Your task to perform on an android device: add a contact Image 0: 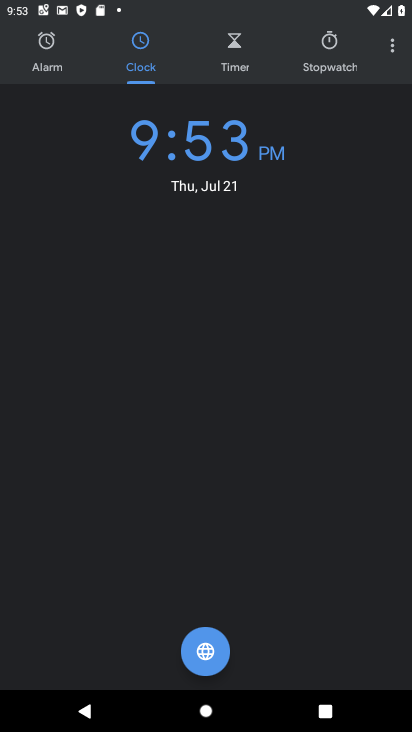
Step 0: press back button
Your task to perform on an android device: add a contact Image 1: 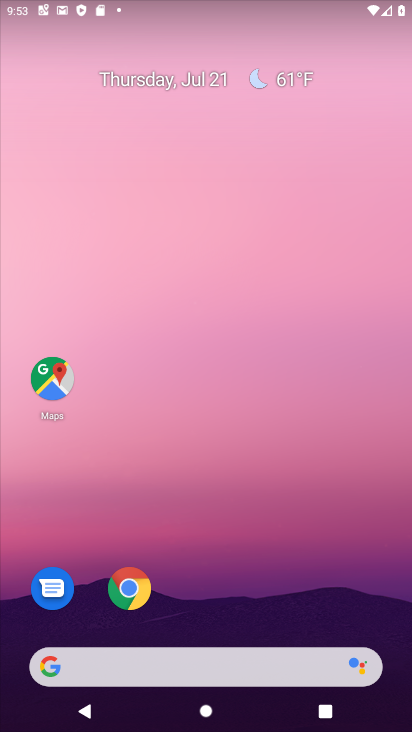
Step 1: drag from (236, 572) to (323, 5)
Your task to perform on an android device: add a contact Image 2: 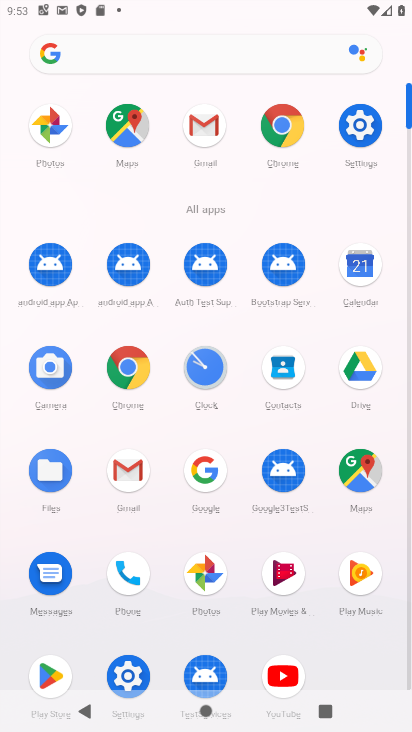
Step 2: click (288, 371)
Your task to perform on an android device: add a contact Image 3: 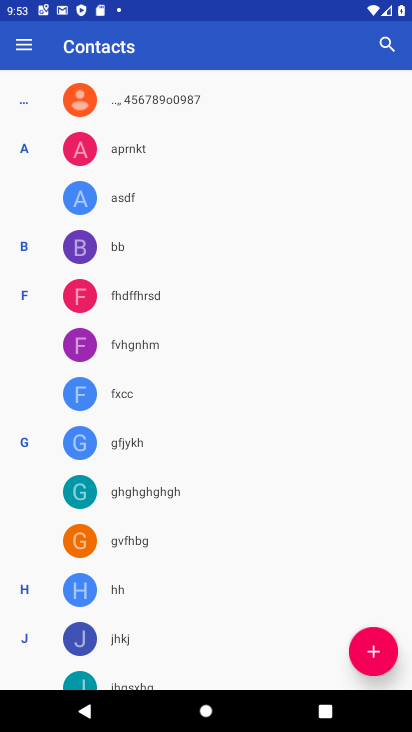
Step 3: click (370, 652)
Your task to perform on an android device: add a contact Image 4: 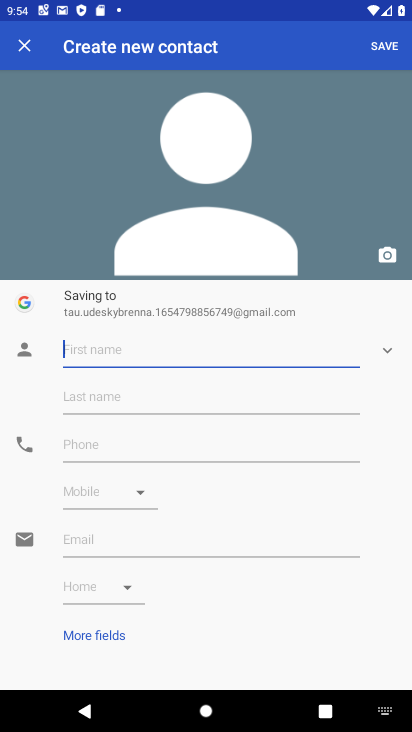
Step 4: click (107, 350)
Your task to perform on an android device: add a contact Image 5: 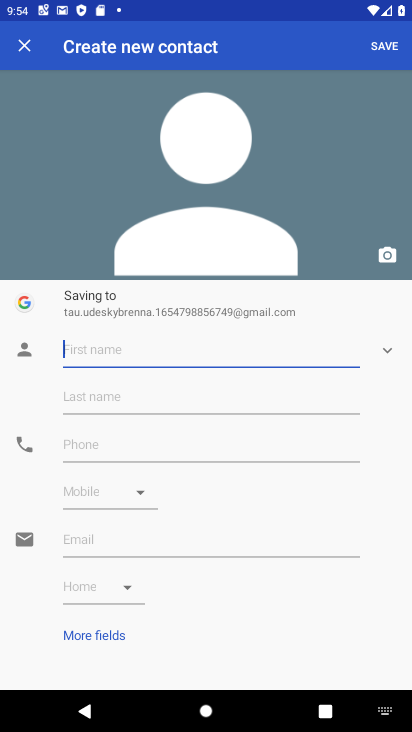
Step 5: type "fgfg"
Your task to perform on an android device: add a contact Image 6: 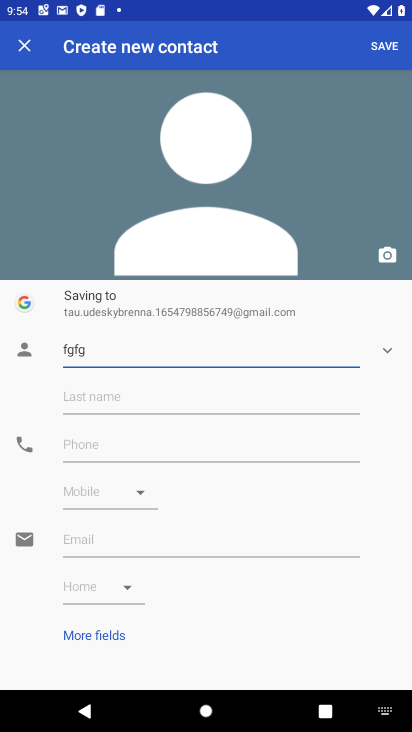
Step 6: click (84, 444)
Your task to perform on an android device: add a contact Image 7: 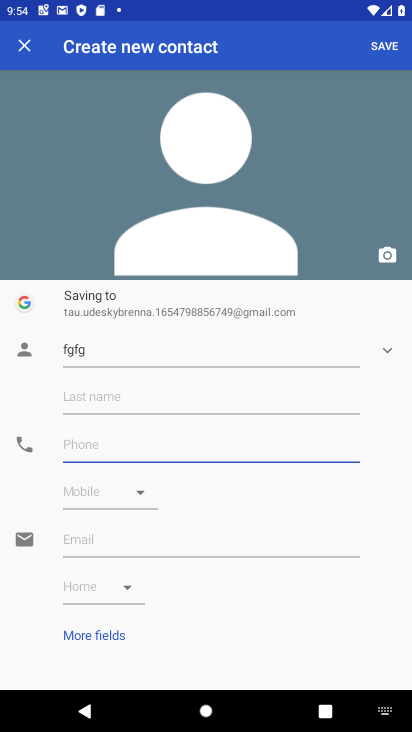
Step 7: type "56765"
Your task to perform on an android device: add a contact Image 8: 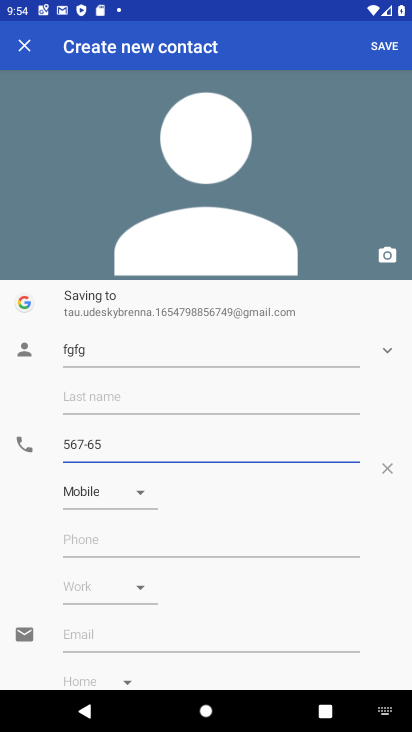
Step 8: click (384, 40)
Your task to perform on an android device: add a contact Image 9: 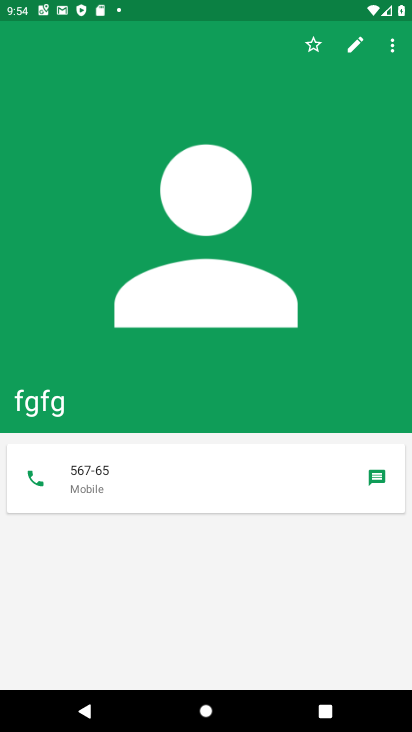
Step 9: task complete